Your task to perform on an android device: toggle javascript in the chrome app Image 0: 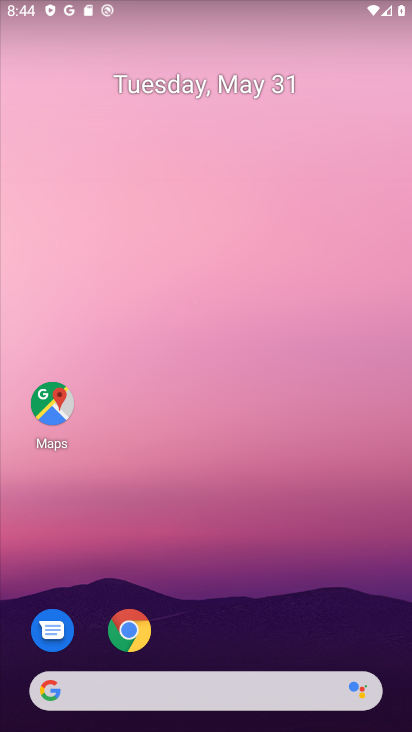
Step 0: click (133, 634)
Your task to perform on an android device: toggle javascript in the chrome app Image 1: 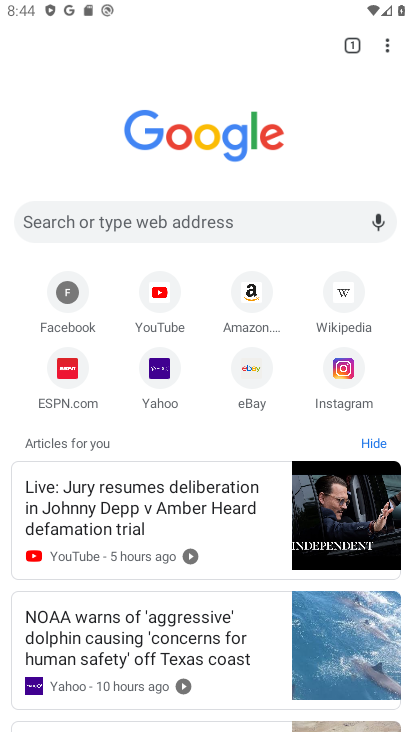
Step 1: click (387, 36)
Your task to perform on an android device: toggle javascript in the chrome app Image 2: 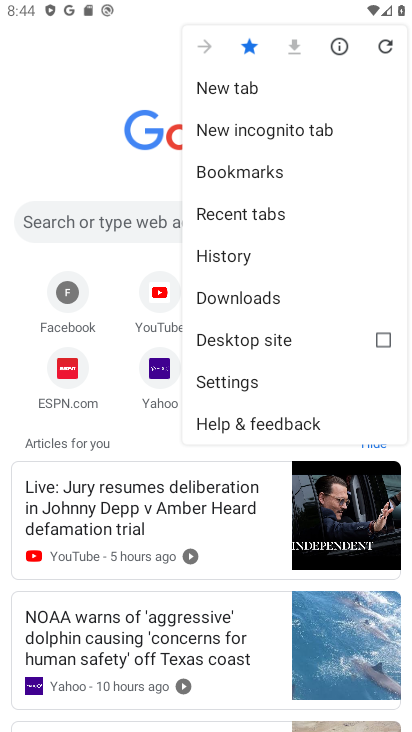
Step 2: click (269, 382)
Your task to perform on an android device: toggle javascript in the chrome app Image 3: 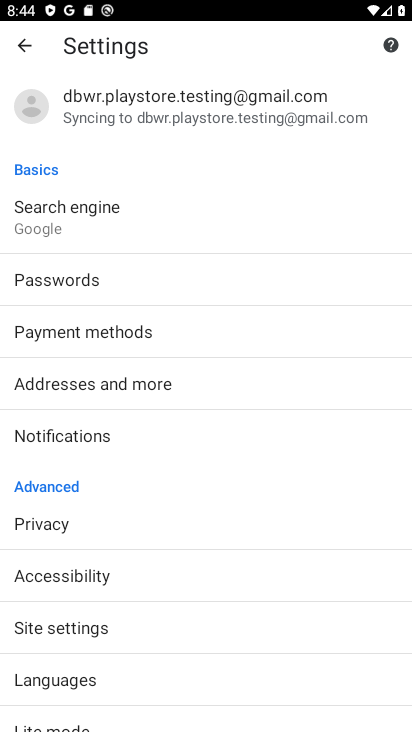
Step 3: click (103, 623)
Your task to perform on an android device: toggle javascript in the chrome app Image 4: 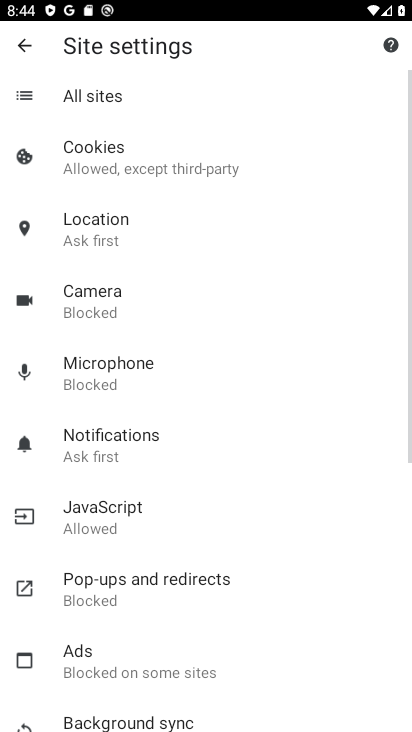
Step 4: click (128, 539)
Your task to perform on an android device: toggle javascript in the chrome app Image 5: 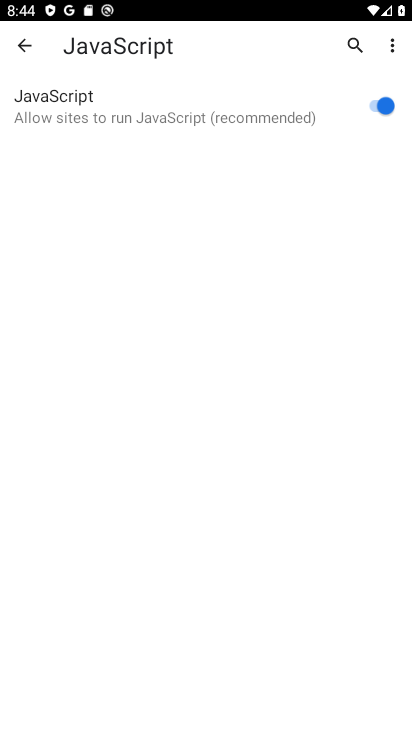
Step 5: click (384, 101)
Your task to perform on an android device: toggle javascript in the chrome app Image 6: 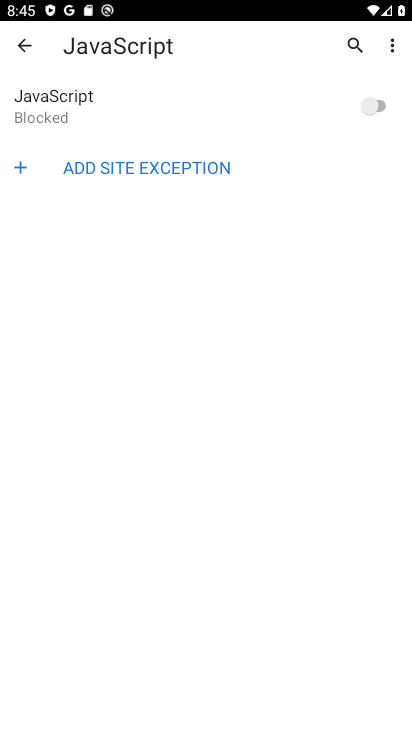
Step 6: task complete